Your task to perform on an android device: Search for sushi restaurants on Maps Image 0: 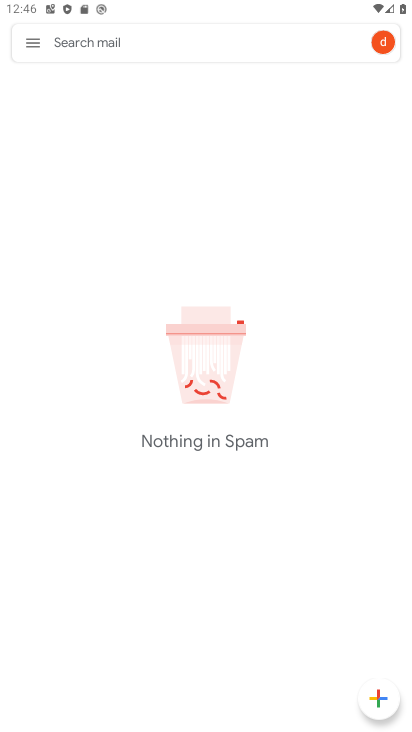
Step 0: press home button
Your task to perform on an android device: Search for sushi restaurants on Maps Image 1: 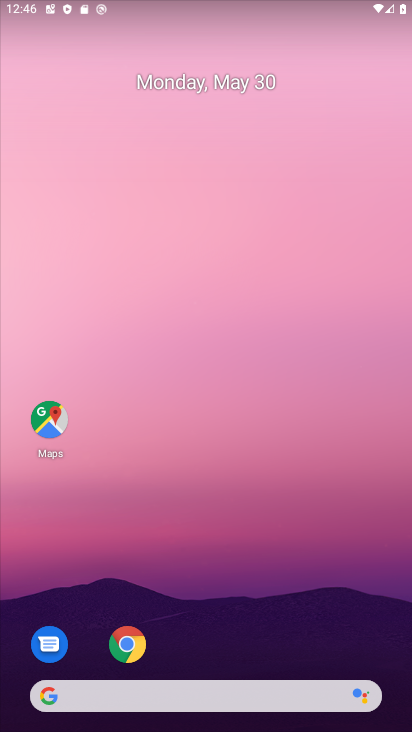
Step 1: drag from (366, 615) to (285, 246)
Your task to perform on an android device: Search for sushi restaurants on Maps Image 2: 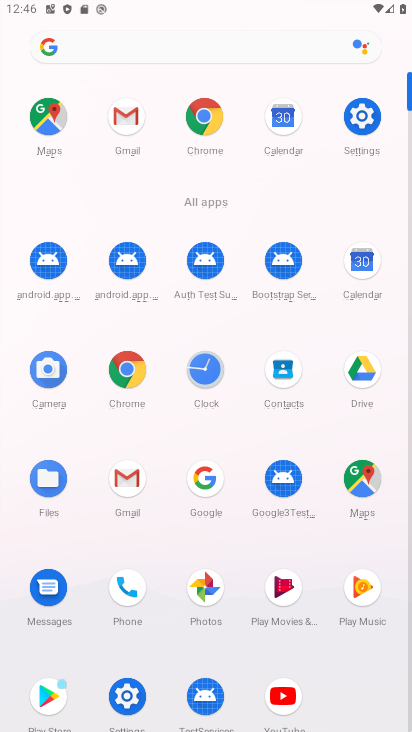
Step 2: click (349, 497)
Your task to perform on an android device: Search for sushi restaurants on Maps Image 3: 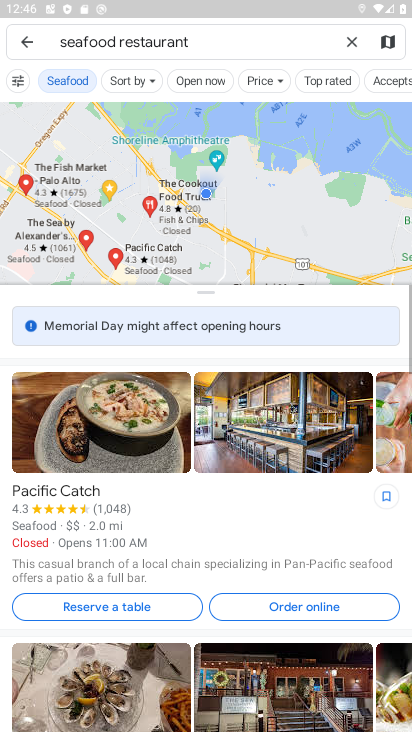
Step 3: click (350, 40)
Your task to perform on an android device: Search for sushi restaurants on Maps Image 4: 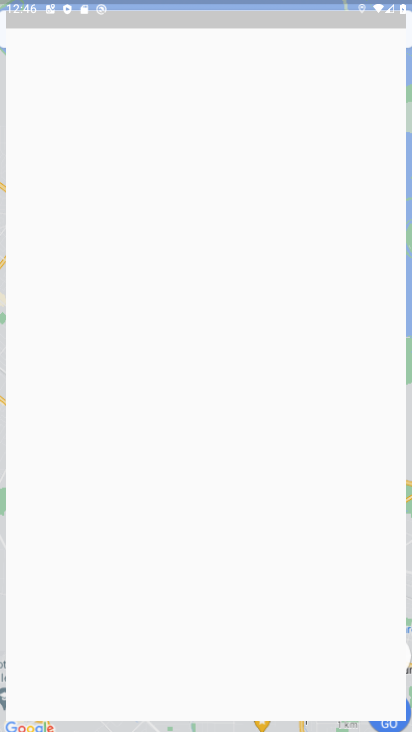
Step 4: click (137, 48)
Your task to perform on an android device: Search for sushi restaurants on Maps Image 5: 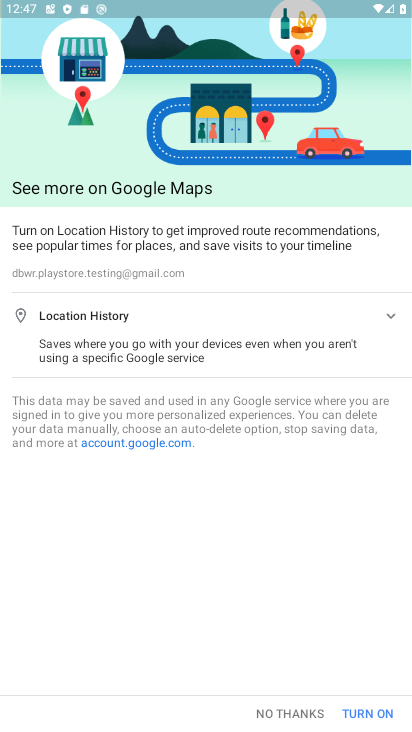
Step 5: type "sushi restaurants "
Your task to perform on an android device: Search for sushi restaurants on Maps Image 6: 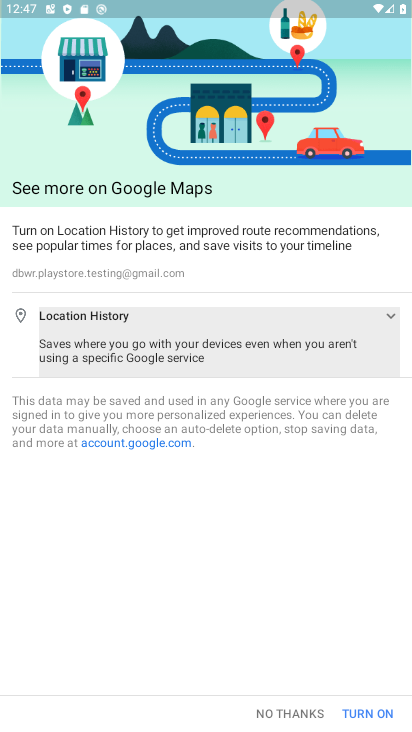
Step 6: click (288, 715)
Your task to perform on an android device: Search for sushi restaurants on Maps Image 7: 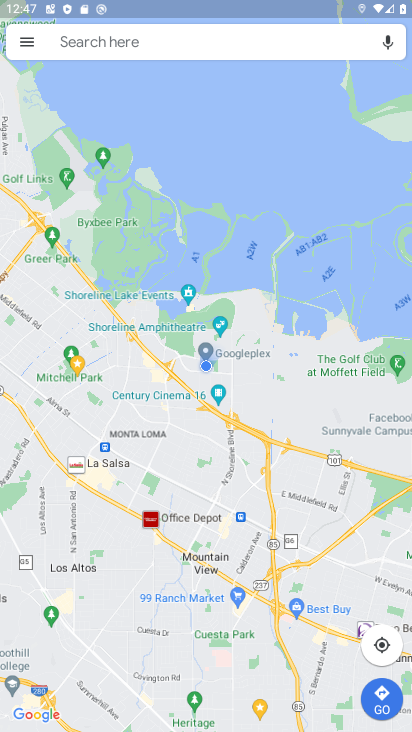
Step 7: task complete